Your task to perform on an android device: clear history in the chrome app Image 0: 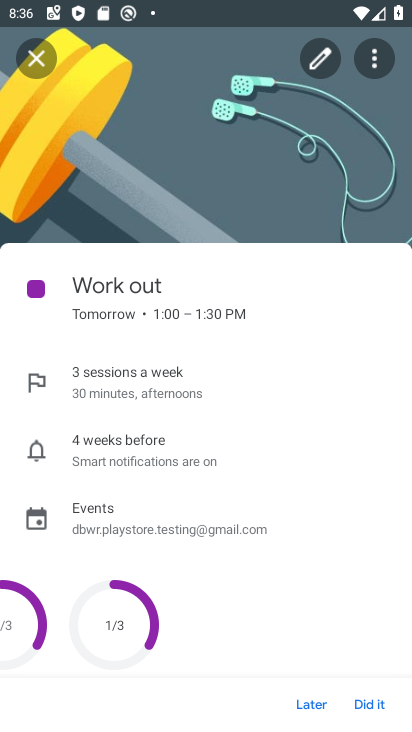
Step 0: press home button
Your task to perform on an android device: clear history in the chrome app Image 1: 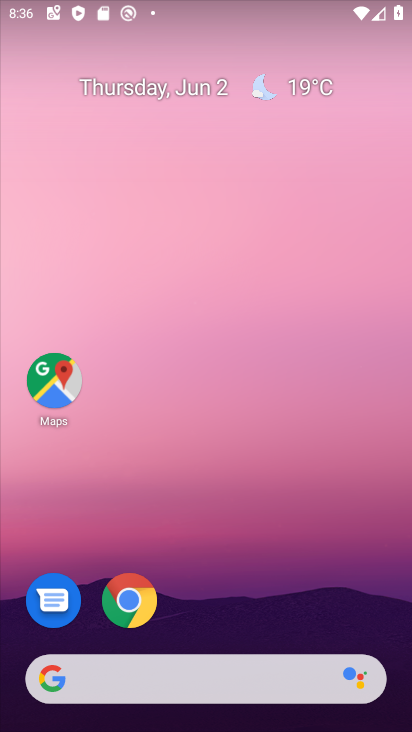
Step 1: drag from (355, 605) to (377, 295)
Your task to perform on an android device: clear history in the chrome app Image 2: 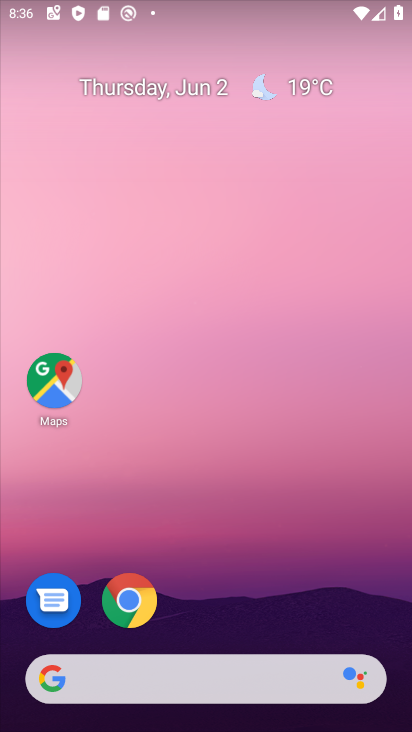
Step 2: drag from (345, 623) to (353, 211)
Your task to perform on an android device: clear history in the chrome app Image 3: 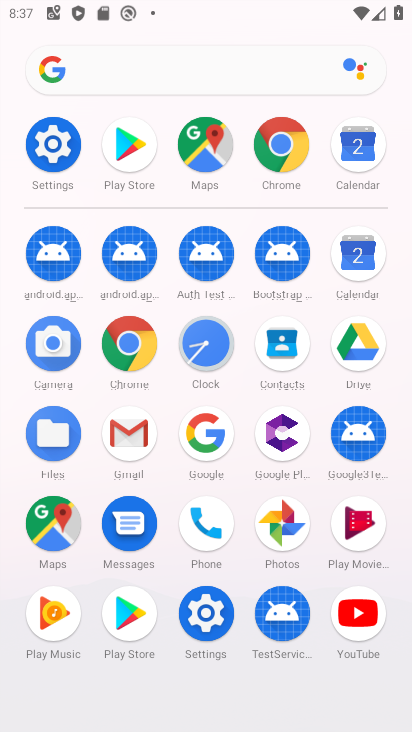
Step 3: click (136, 338)
Your task to perform on an android device: clear history in the chrome app Image 4: 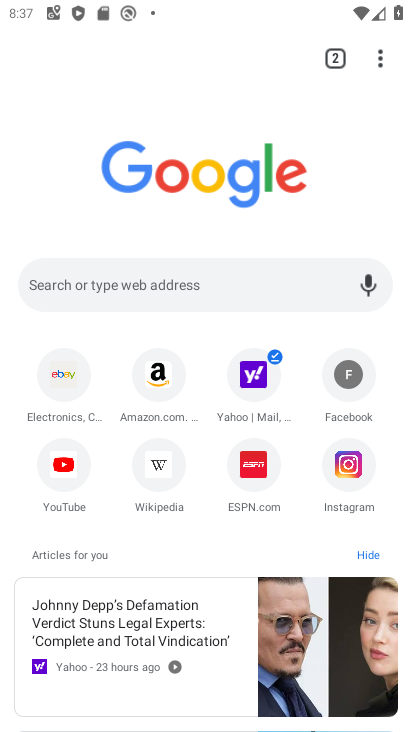
Step 4: click (376, 66)
Your task to perform on an android device: clear history in the chrome app Image 5: 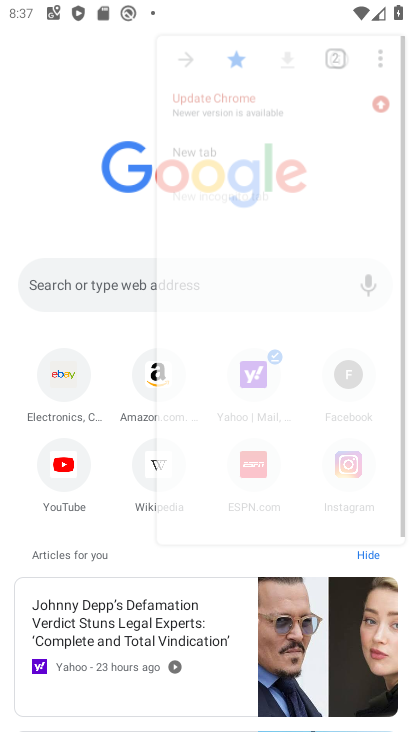
Step 5: click (376, 66)
Your task to perform on an android device: clear history in the chrome app Image 6: 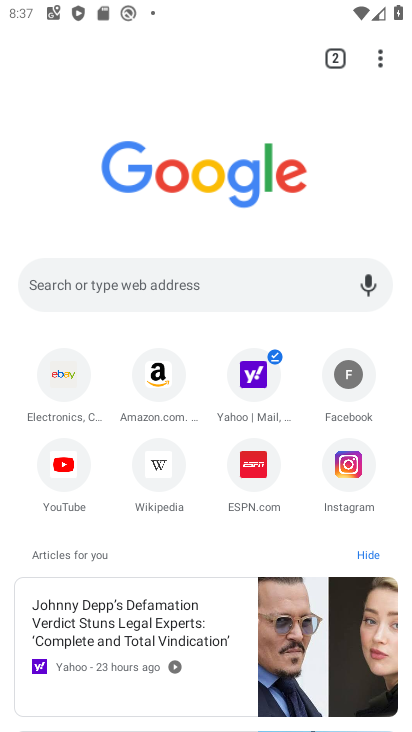
Step 6: click (377, 58)
Your task to perform on an android device: clear history in the chrome app Image 7: 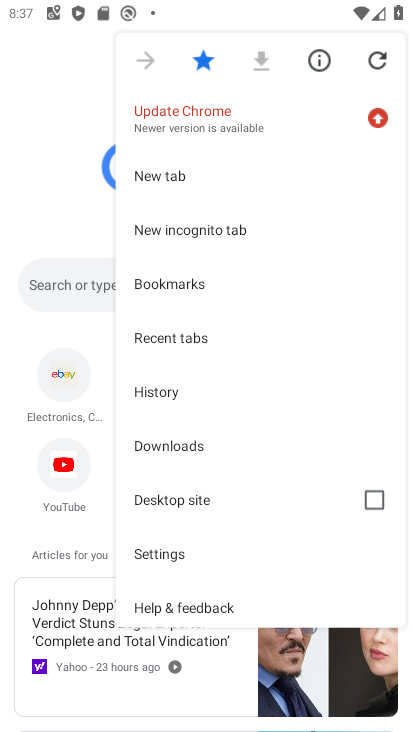
Step 7: click (201, 400)
Your task to perform on an android device: clear history in the chrome app Image 8: 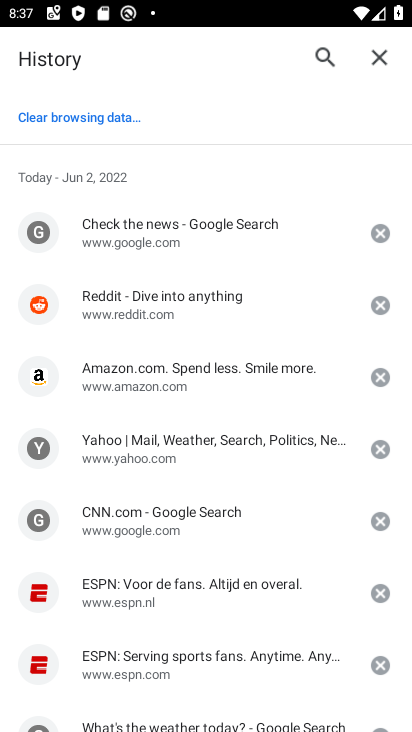
Step 8: click (112, 124)
Your task to perform on an android device: clear history in the chrome app Image 9: 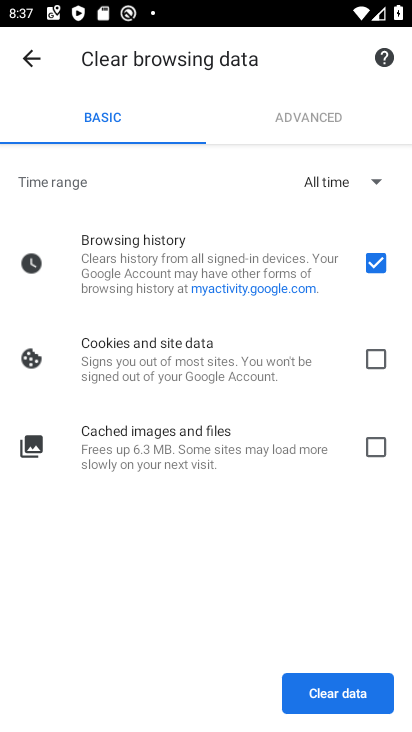
Step 9: click (383, 363)
Your task to perform on an android device: clear history in the chrome app Image 10: 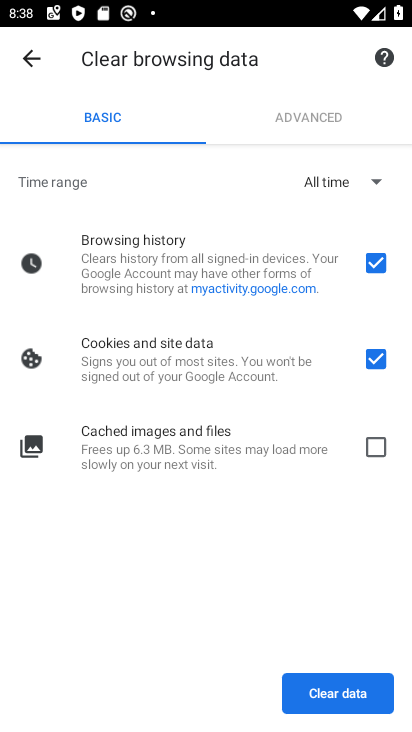
Step 10: click (373, 438)
Your task to perform on an android device: clear history in the chrome app Image 11: 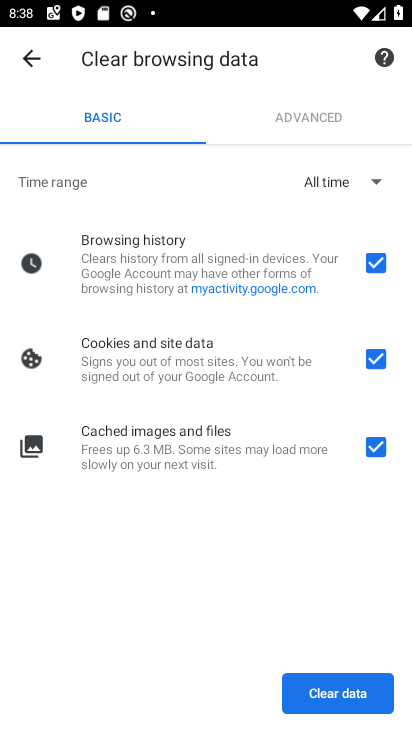
Step 11: click (338, 688)
Your task to perform on an android device: clear history in the chrome app Image 12: 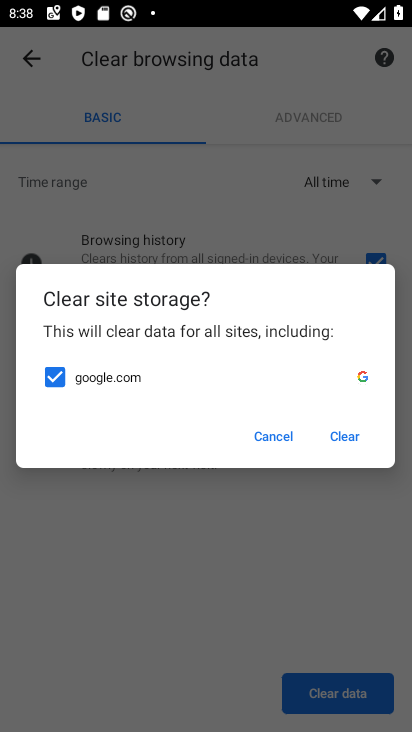
Step 12: click (342, 431)
Your task to perform on an android device: clear history in the chrome app Image 13: 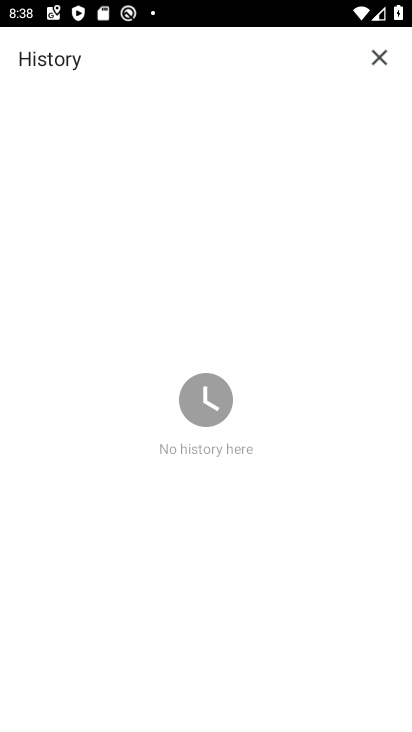
Step 13: click (342, 434)
Your task to perform on an android device: clear history in the chrome app Image 14: 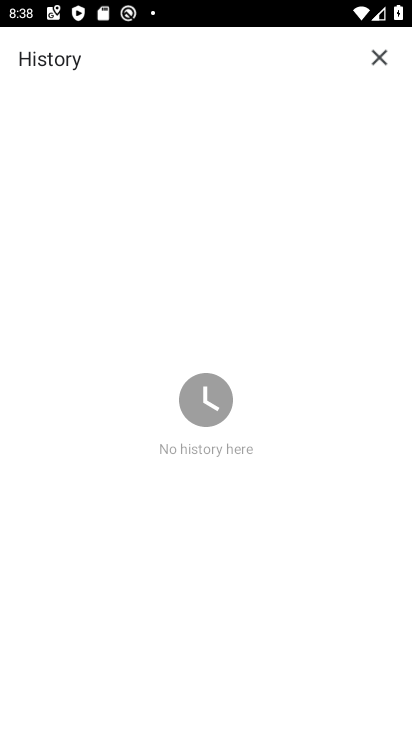
Step 14: task complete